Your task to perform on an android device: Go to Yahoo.com Image 0: 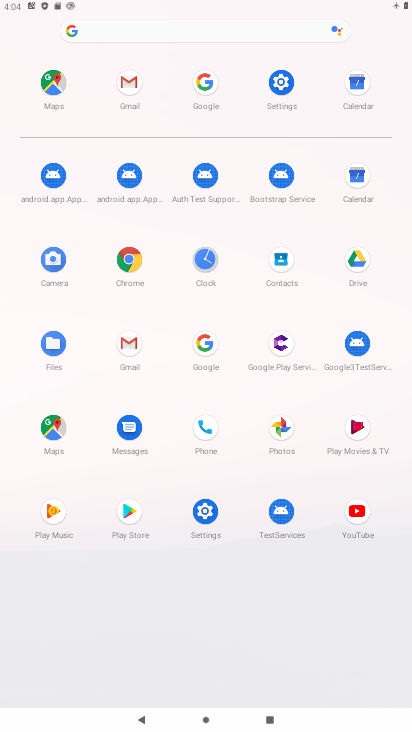
Step 0: click (200, 340)
Your task to perform on an android device: Go to Yahoo.com Image 1: 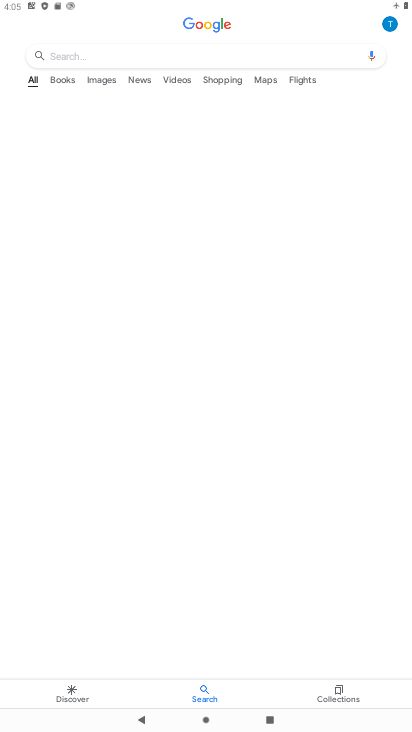
Step 1: click (248, 46)
Your task to perform on an android device: Go to Yahoo.com Image 2: 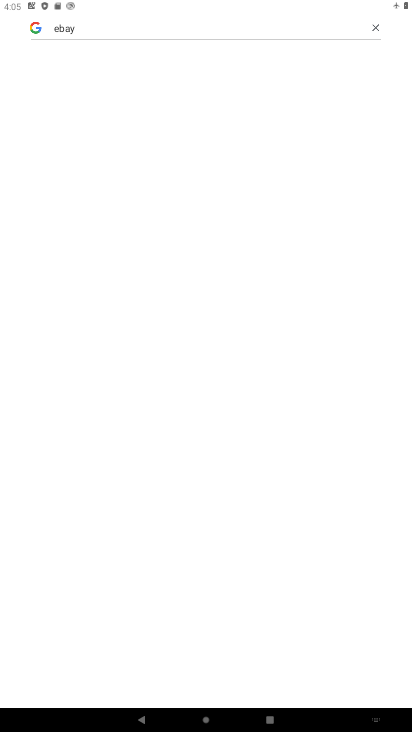
Step 2: click (374, 26)
Your task to perform on an android device: Go to Yahoo.com Image 3: 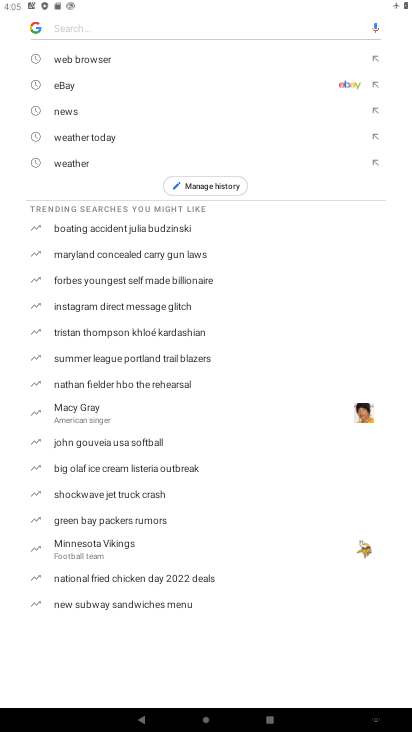
Step 3: type "yahoo"
Your task to perform on an android device: Go to Yahoo.com Image 4: 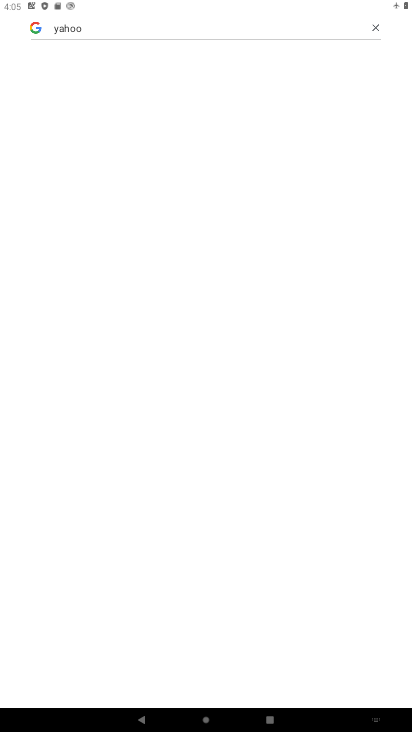
Step 4: task complete